Your task to perform on an android device: uninstall "LinkedIn" Image 0: 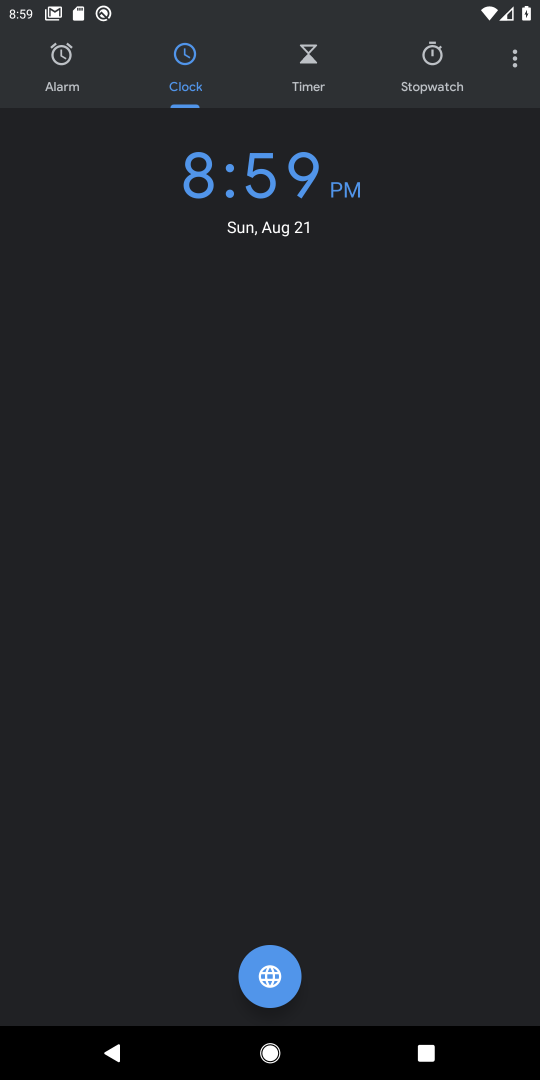
Step 0: press home button
Your task to perform on an android device: uninstall "LinkedIn" Image 1: 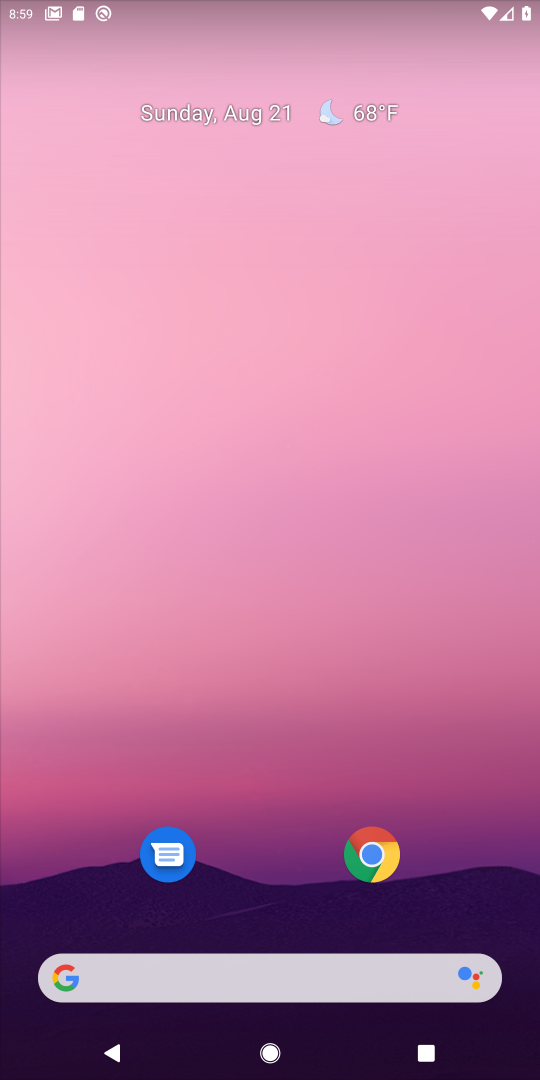
Step 1: drag from (314, 895) to (72, 14)
Your task to perform on an android device: uninstall "LinkedIn" Image 2: 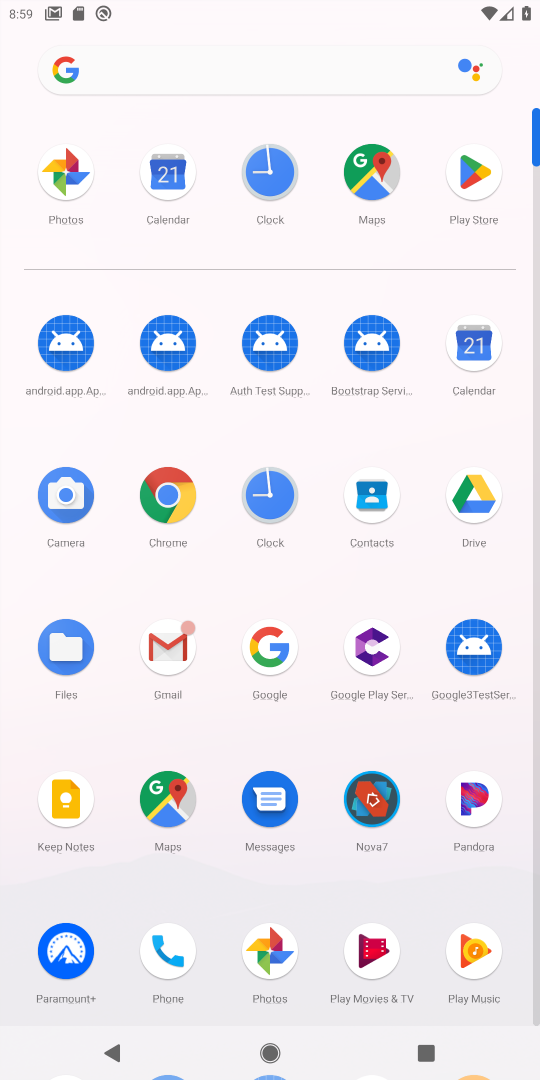
Step 2: click (462, 247)
Your task to perform on an android device: uninstall "LinkedIn" Image 3: 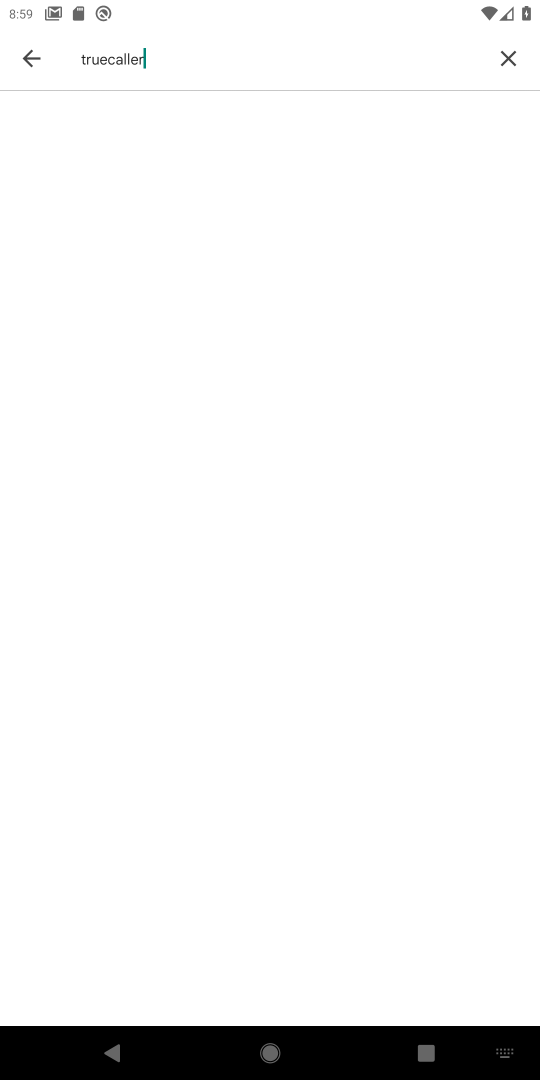
Step 3: click (518, 66)
Your task to perform on an android device: uninstall "LinkedIn" Image 4: 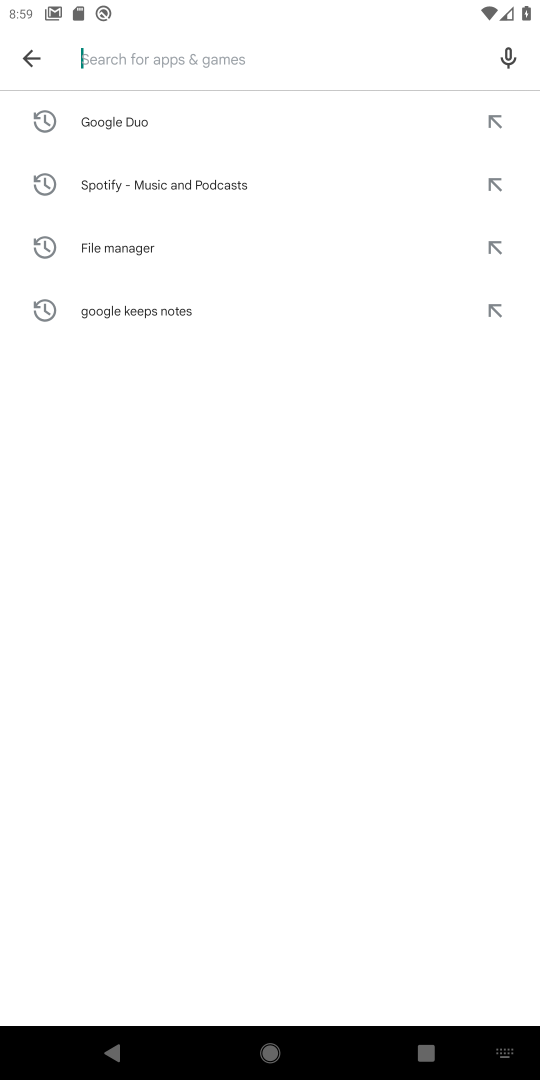
Step 4: type "linkedin"
Your task to perform on an android device: uninstall "LinkedIn" Image 5: 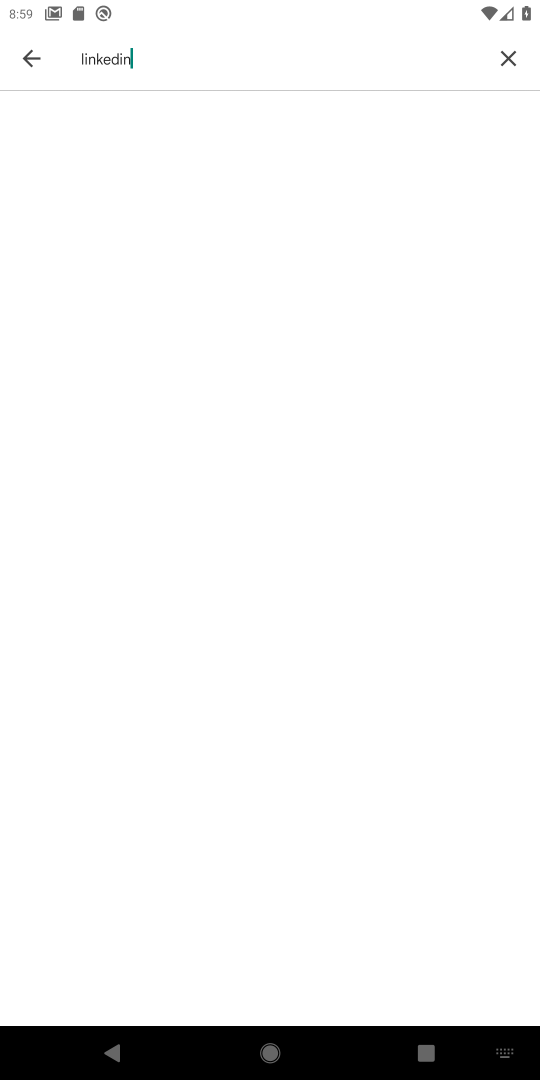
Step 5: click (107, 119)
Your task to perform on an android device: uninstall "LinkedIn" Image 6: 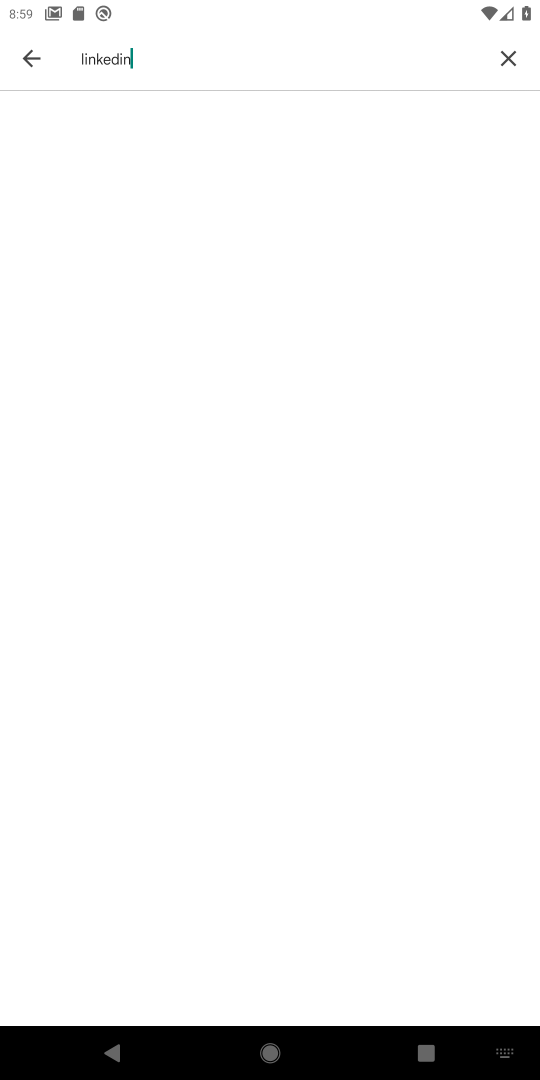
Step 6: task complete